Your task to perform on an android device: toggle show notifications on the lock screen Image 0: 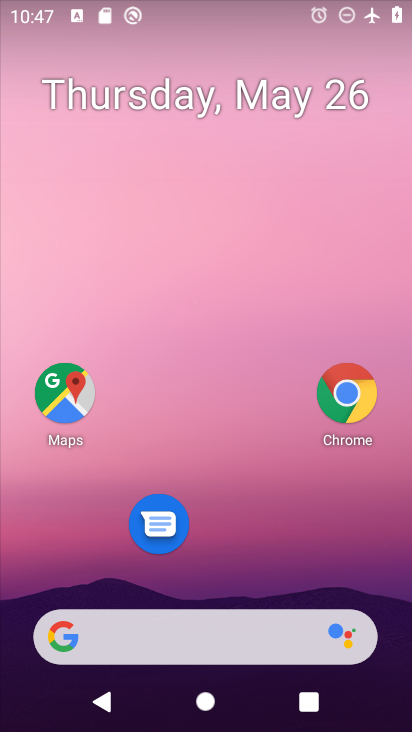
Step 0: drag from (258, 533) to (283, 34)
Your task to perform on an android device: toggle show notifications on the lock screen Image 1: 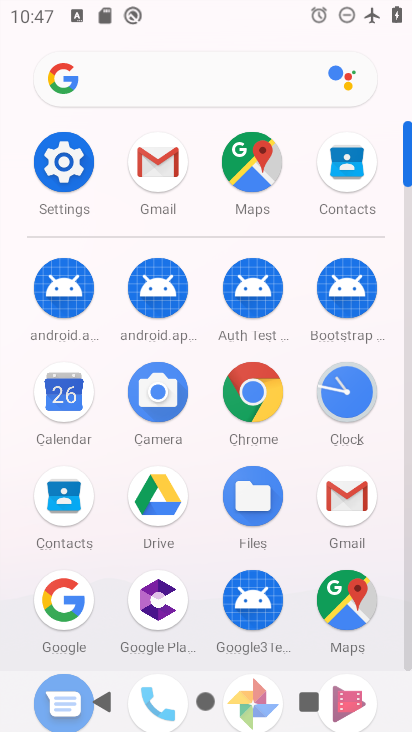
Step 1: click (62, 152)
Your task to perform on an android device: toggle show notifications on the lock screen Image 2: 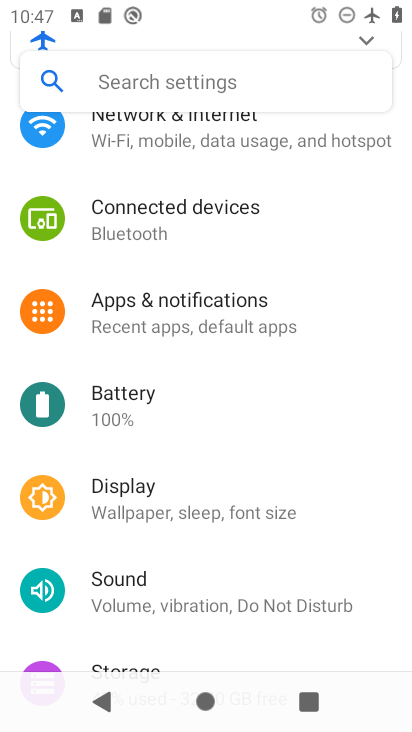
Step 2: click (220, 303)
Your task to perform on an android device: toggle show notifications on the lock screen Image 3: 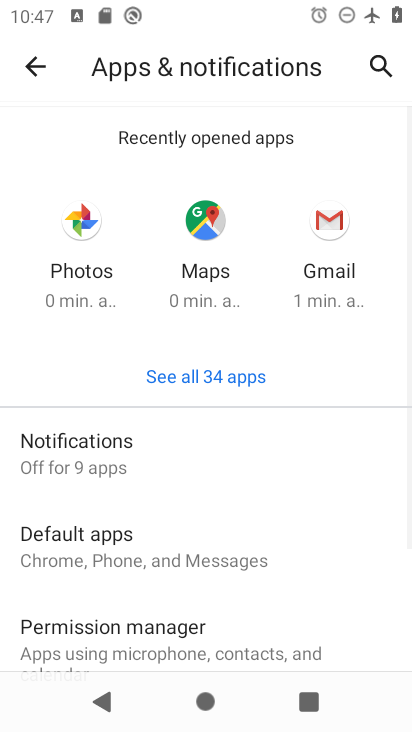
Step 3: click (149, 441)
Your task to perform on an android device: toggle show notifications on the lock screen Image 4: 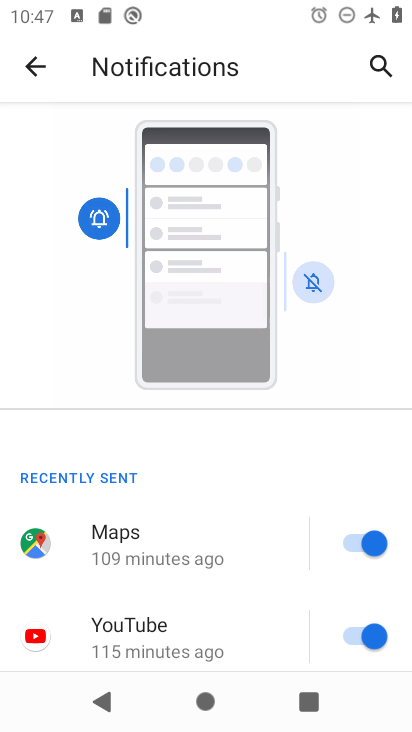
Step 4: drag from (224, 566) to (249, 109)
Your task to perform on an android device: toggle show notifications on the lock screen Image 5: 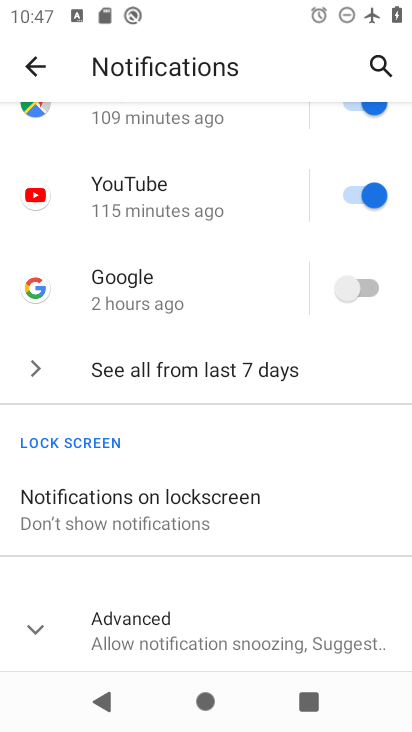
Step 5: click (223, 505)
Your task to perform on an android device: toggle show notifications on the lock screen Image 6: 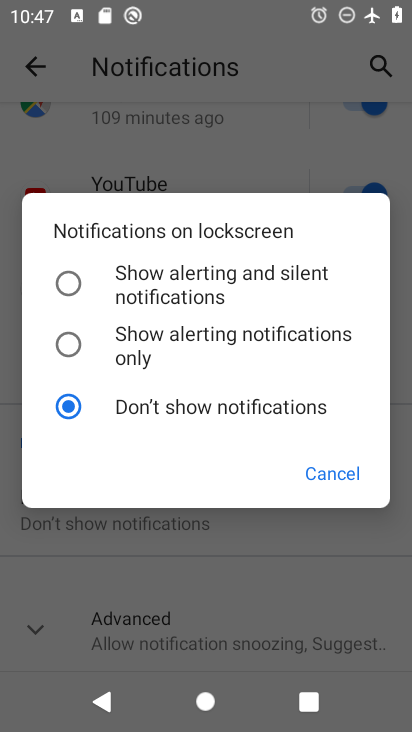
Step 6: click (69, 285)
Your task to perform on an android device: toggle show notifications on the lock screen Image 7: 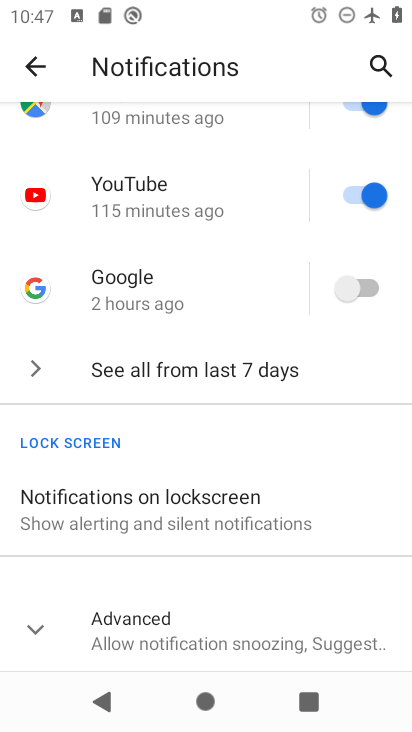
Step 7: task complete